Your task to perform on an android device: Open Android settings Image 0: 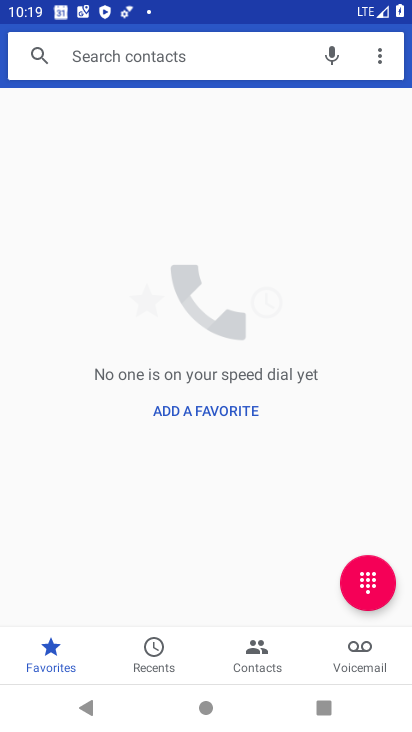
Step 0: press home button
Your task to perform on an android device: Open Android settings Image 1: 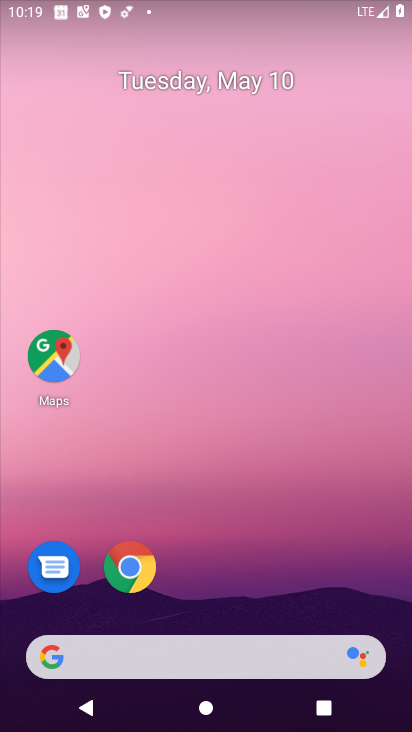
Step 1: drag from (34, 627) to (235, 186)
Your task to perform on an android device: Open Android settings Image 2: 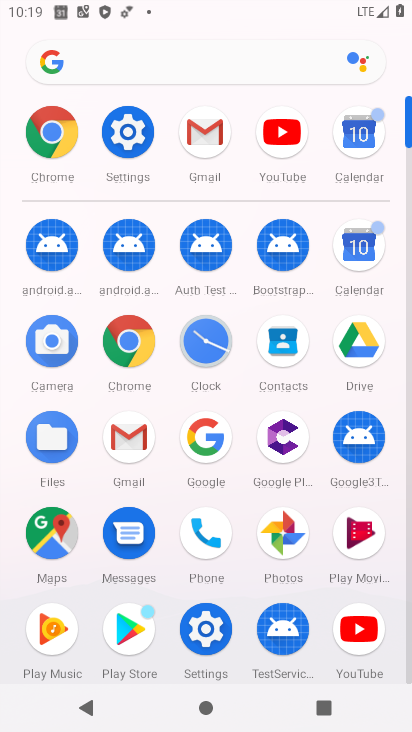
Step 2: click (123, 122)
Your task to perform on an android device: Open Android settings Image 3: 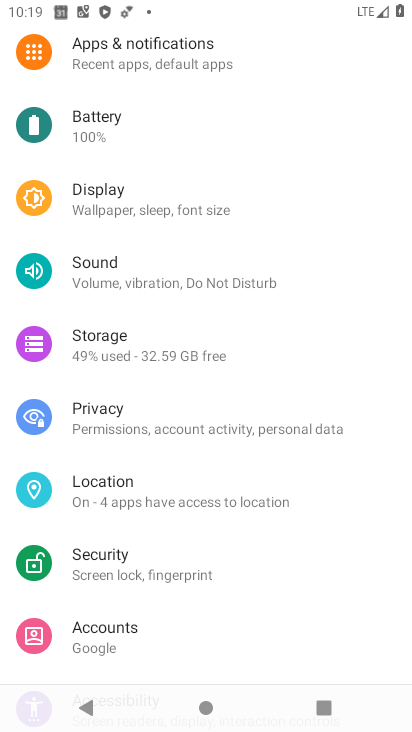
Step 3: drag from (182, 621) to (322, 127)
Your task to perform on an android device: Open Android settings Image 4: 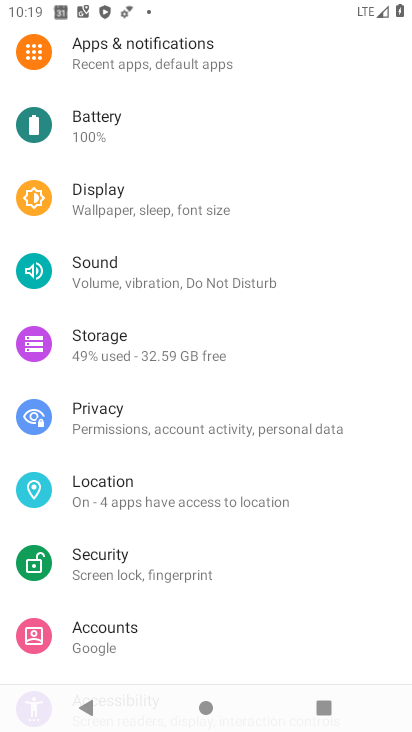
Step 4: drag from (22, 626) to (290, 149)
Your task to perform on an android device: Open Android settings Image 5: 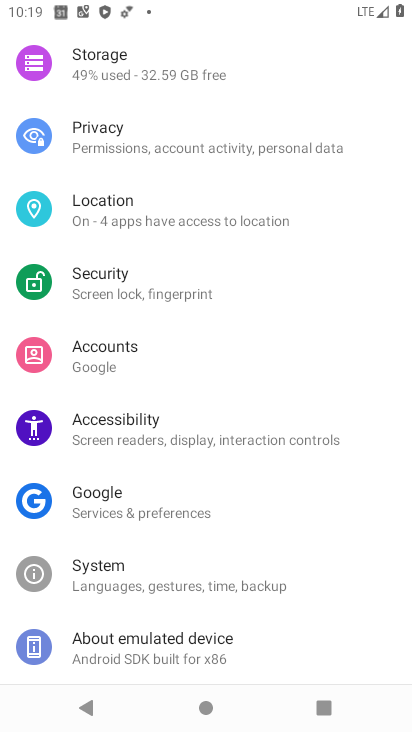
Step 5: click (108, 632)
Your task to perform on an android device: Open Android settings Image 6: 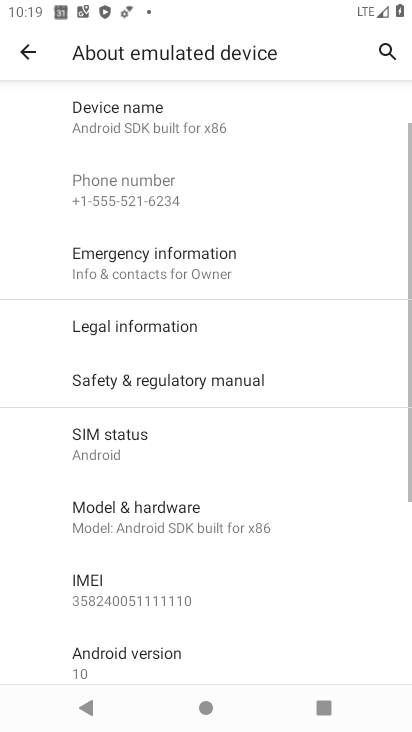
Step 6: click (164, 647)
Your task to perform on an android device: Open Android settings Image 7: 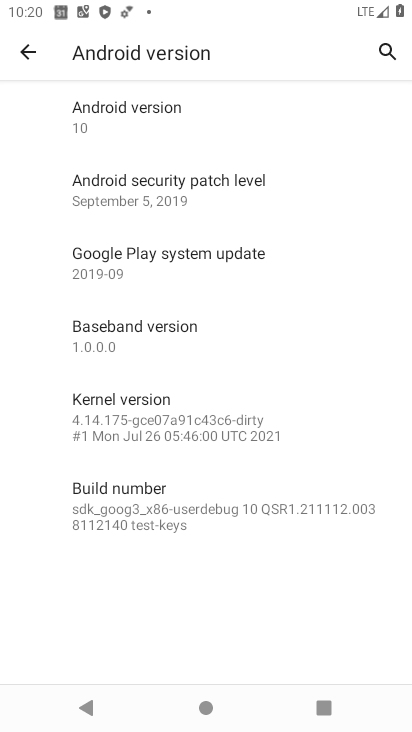
Step 7: press home button
Your task to perform on an android device: Open Android settings Image 8: 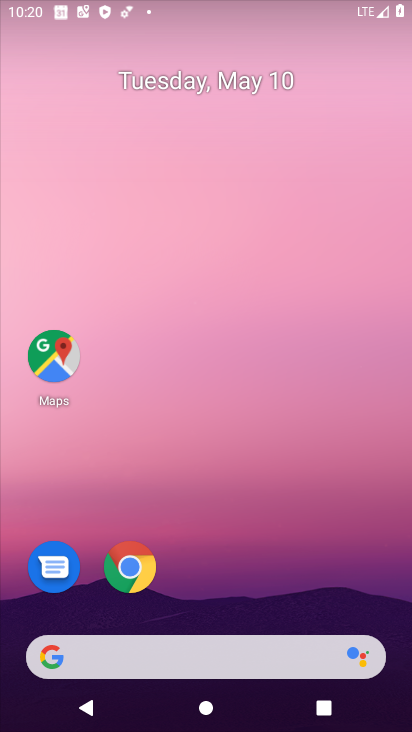
Step 8: drag from (307, 728) to (199, 130)
Your task to perform on an android device: Open Android settings Image 9: 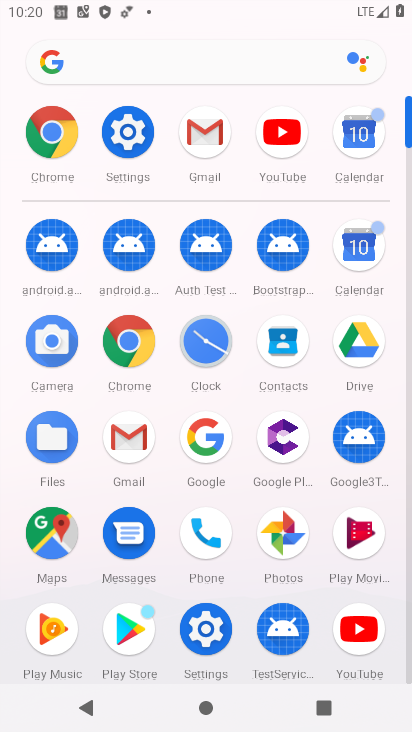
Step 9: click (127, 122)
Your task to perform on an android device: Open Android settings Image 10: 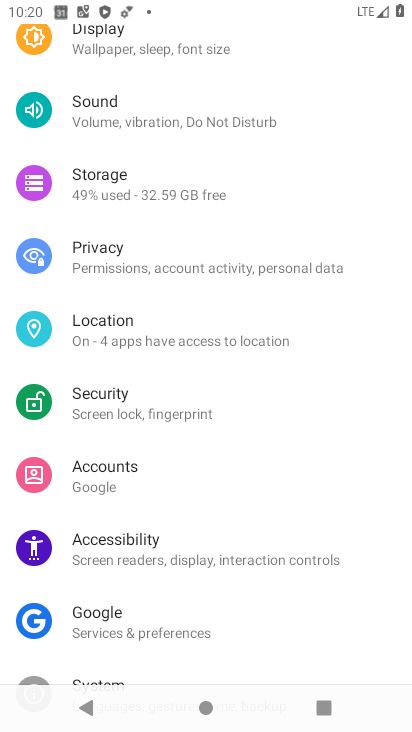
Step 10: drag from (162, 646) to (278, 176)
Your task to perform on an android device: Open Android settings Image 11: 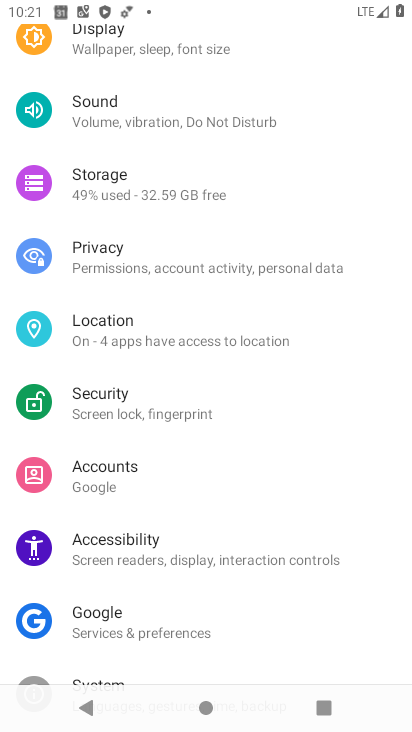
Step 11: drag from (139, 637) to (338, 140)
Your task to perform on an android device: Open Android settings Image 12: 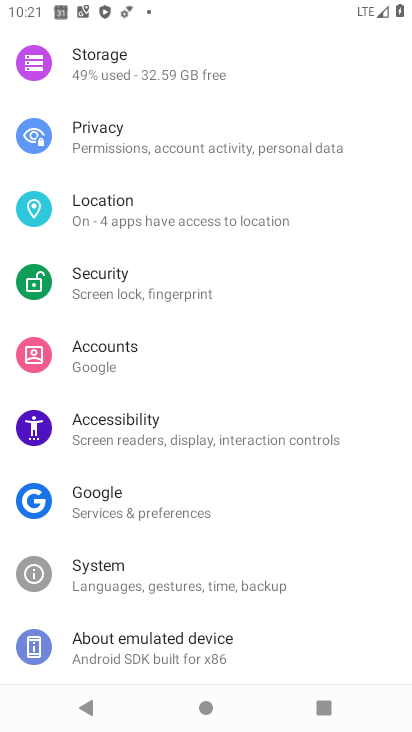
Step 12: click (168, 620)
Your task to perform on an android device: Open Android settings Image 13: 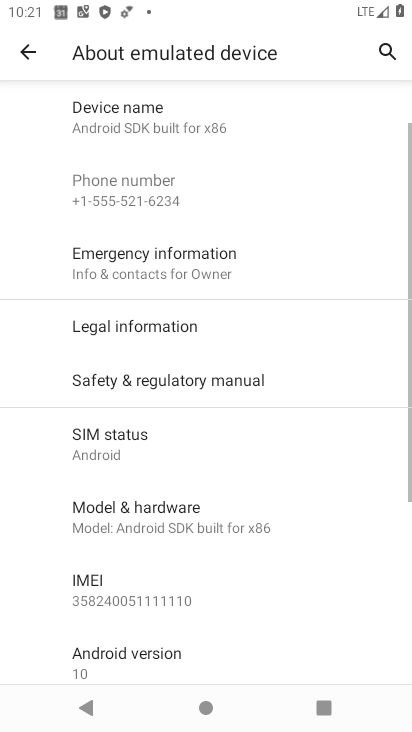
Step 13: task complete